Your task to perform on an android device: stop showing notifications on the lock screen Image 0: 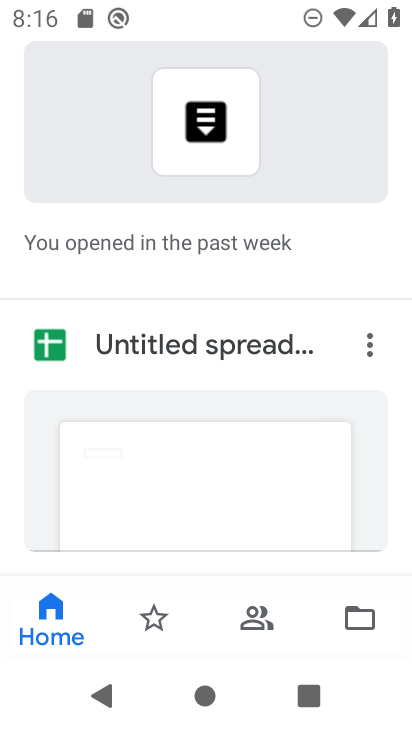
Step 0: press home button
Your task to perform on an android device: stop showing notifications on the lock screen Image 1: 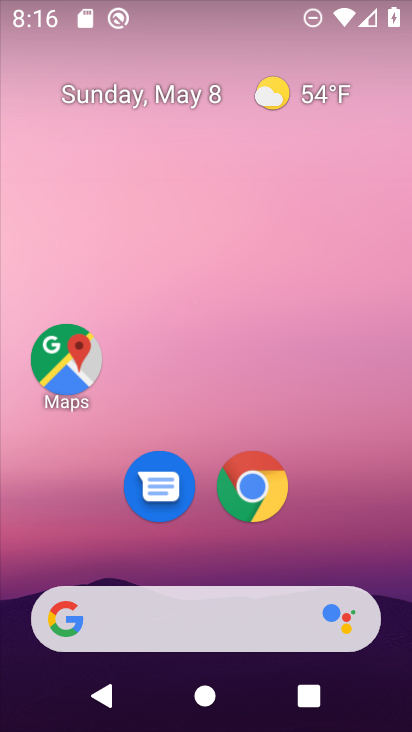
Step 1: drag from (221, 513) to (262, 143)
Your task to perform on an android device: stop showing notifications on the lock screen Image 2: 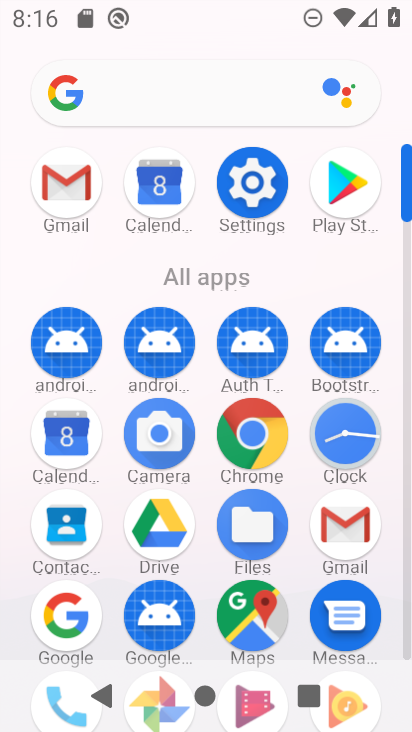
Step 2: click (255, 180)
Your task to perform on an android device: stop showing notifications on the lock screen Image 3: 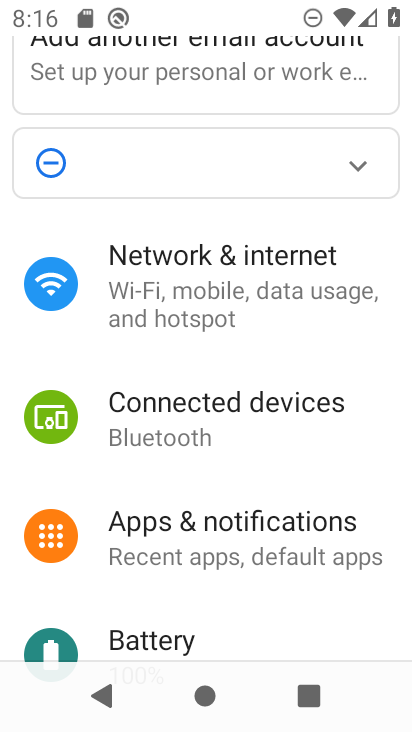
Step 3: click (228, 549)
Your task to perform on an android device: stop showing notifications on the lock screen Image 4: 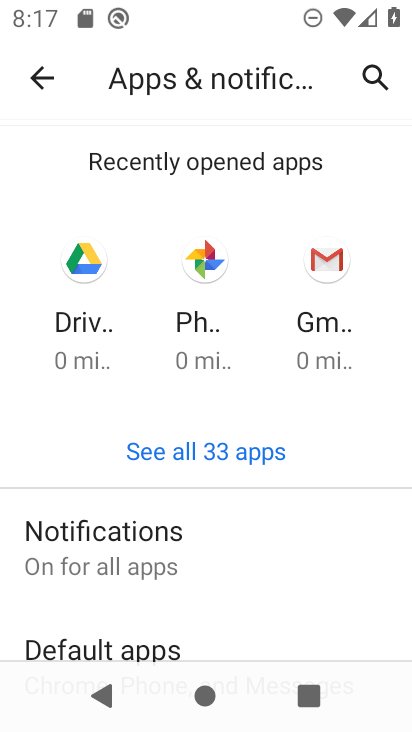
Step 4: click (123, 564)
Your task to perform on an android device: stop showing notifications on the lock screen Image 5: 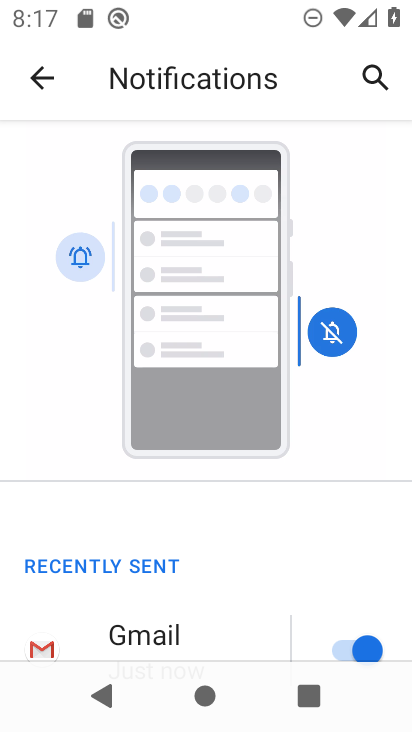
Step 5: drag from (180, 583) to (253, 215)
Your task to perform on an android device: stop showing notifications on the lock screen Image 6: 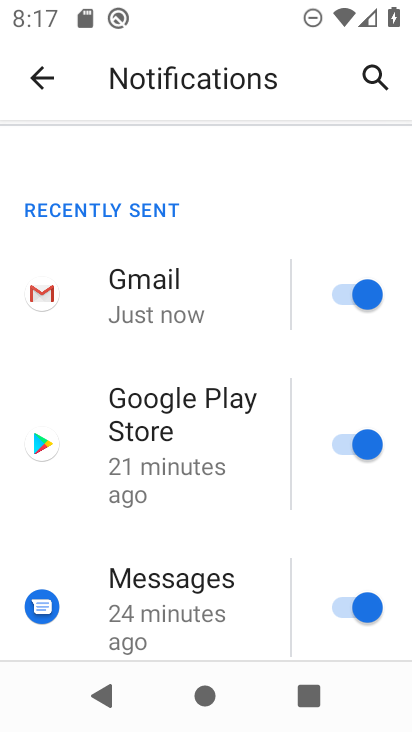
Step 6: drag from (177, 624) to (213, 292)
Your task to perform on an android device: stop showing notifications on the lock screen Image 7: 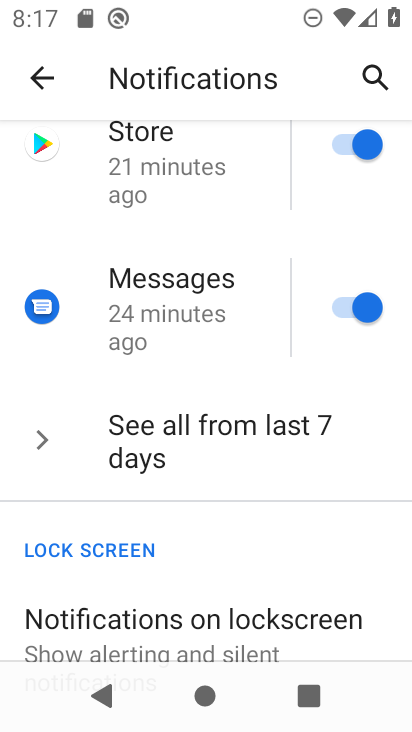
Step 7: click (129, 624)
Your task to perform on an android device: stop showing notifications on the lock screen Image 8: 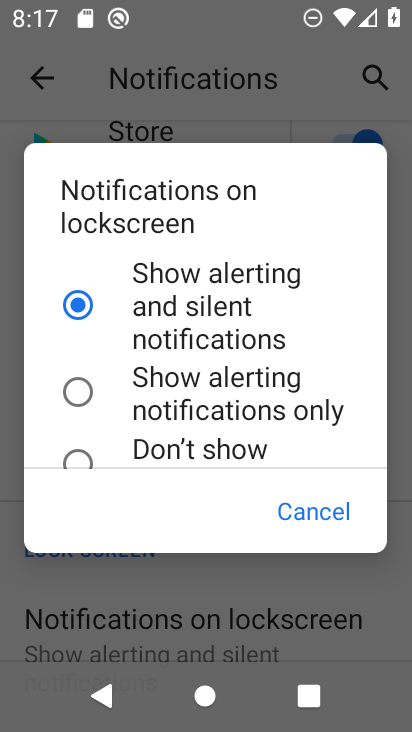
Step 8: click (77, 461)
Your task to perform on an android device: stop showing notifications on the lock screen Image 9: 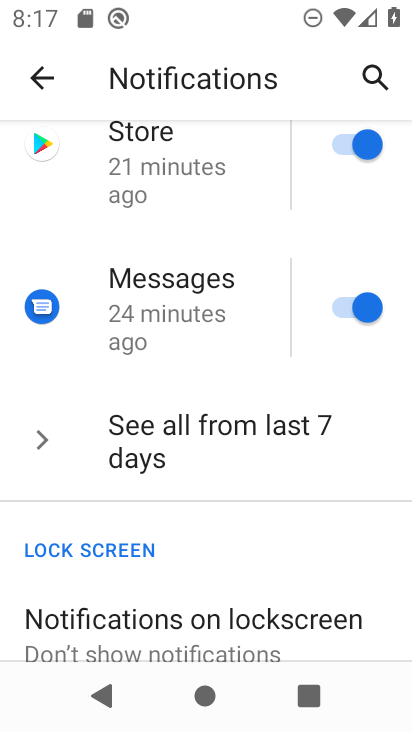
Step 9: task complete